Your task to perform on an android device: turn off airplane mode Image 0: 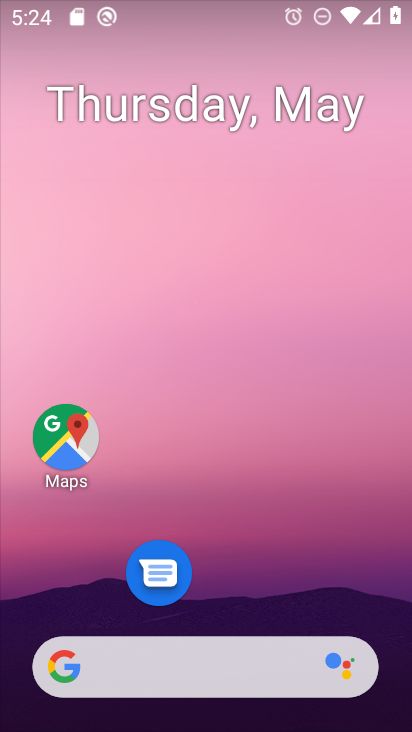
Step 0: drag from (226, 594) to (202, 96)
Your task to perform on an android device: turn off airplane mode Image 1: 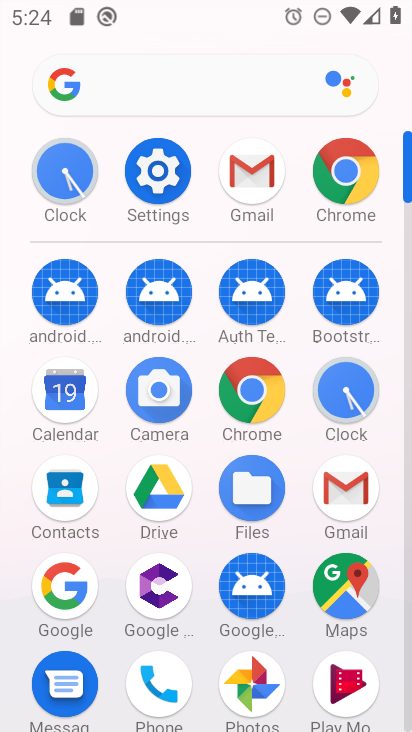
Step 1: drag from (285, 654) to (294, 331)
Your task to perform on an android device: turn off airplane mode Image 2: 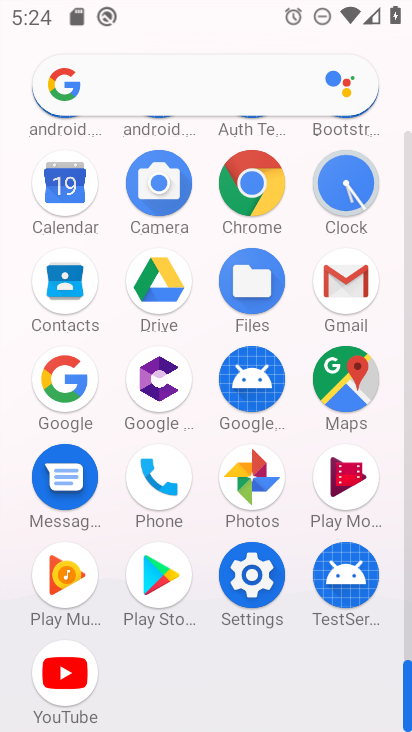
Step 2: click (252, 590)
Your task to perform on an android device: turn off airplane mode Image 3: 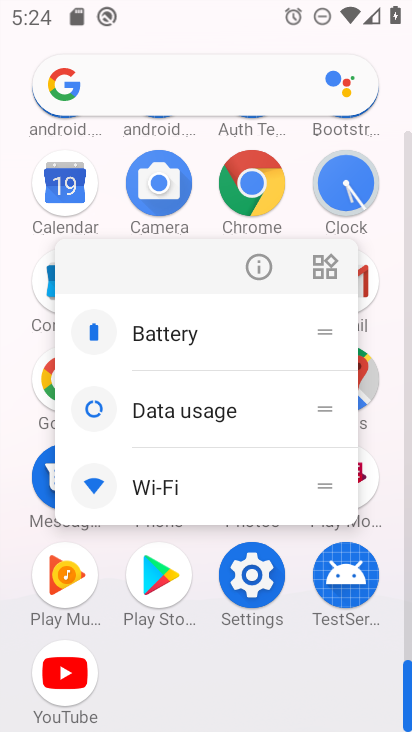
Step 3: click (252, 583)
Your task to perform on an android device: turn off airplane mode Image 4: 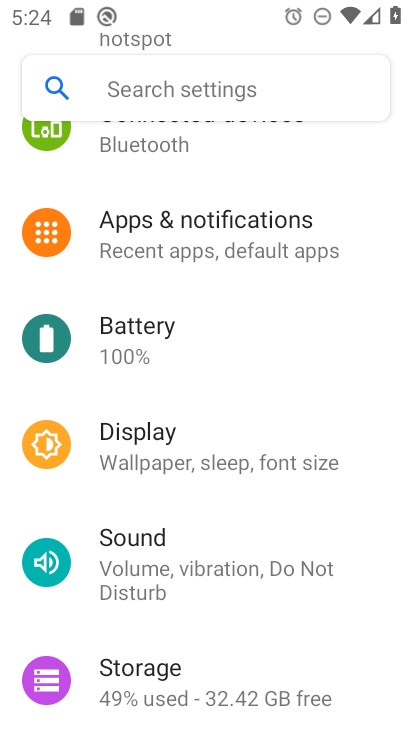
Step 4: drag from (170, 179) to (136, 543)
Your task to perform on an android device: turn off airplane mode Image 5: 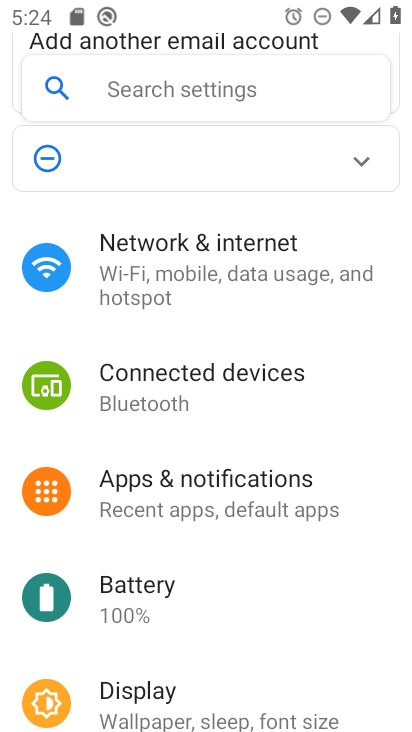
Step 5: click (137, 288)
Your task to perform on an android device: turn off airplane mode Image 6: 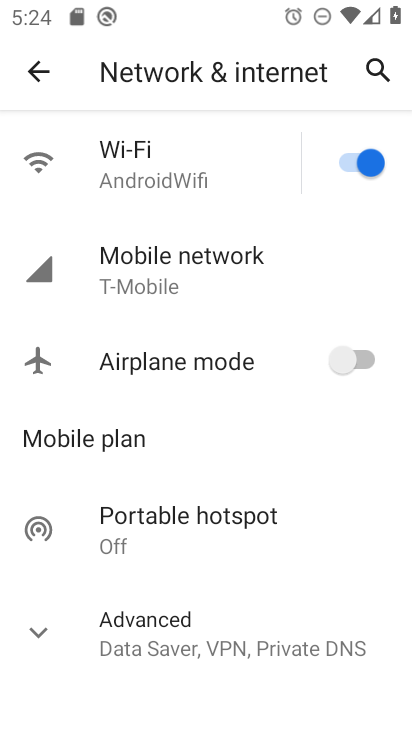
Step 6: task complete